Your task to perform on an android device: toggle pop-ups in chrome Image 0: 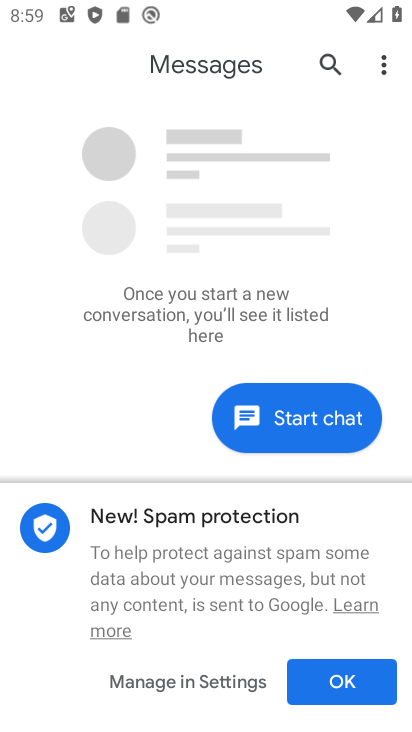
Step 0: press home button
Your task to perform on an android device: toggle pop-ups in chrome Image 1: 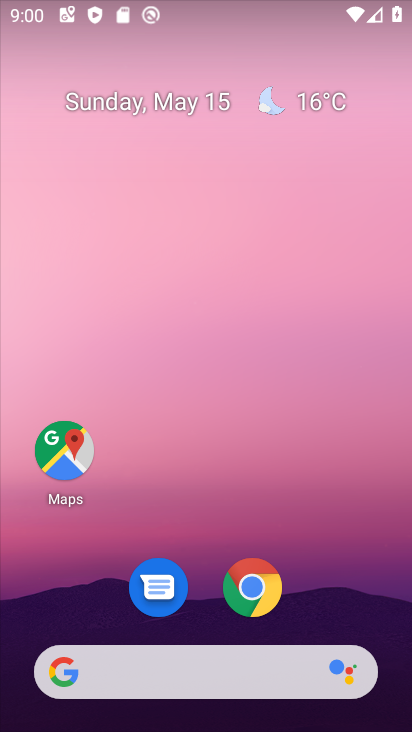
Step 1: click (256, 580)
Your task to perform on an android device: toggle pop-ups in chrome Image 2: 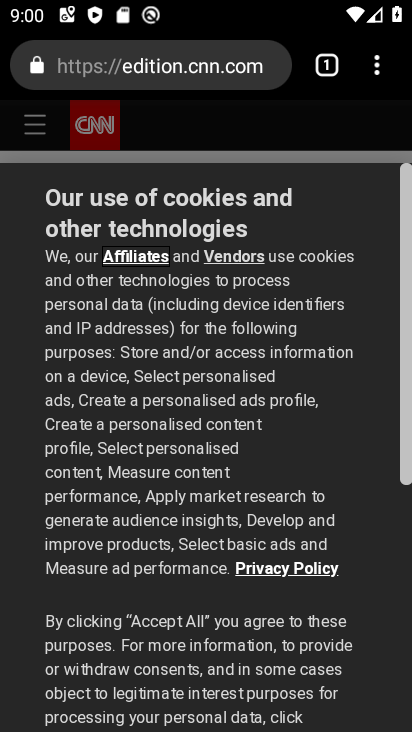
Step 2: drag from (382, 60) to (178, 629)
Your task to perform on an android device: toggle pop-ups in chrome Image 3: 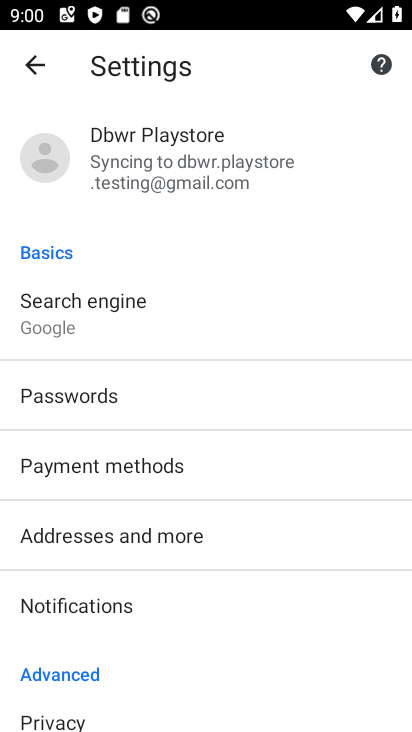
Step 3: click (204, 303)
Your task to perform on an android device: toggle pop-ups in chrome Image 4: 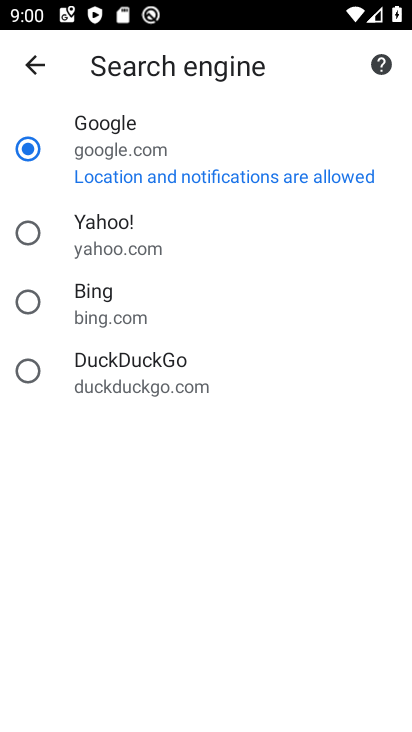
Step 4: click (32, 55)
Your task to perform on an android device: toggle pop-ups in chrome Image 5: 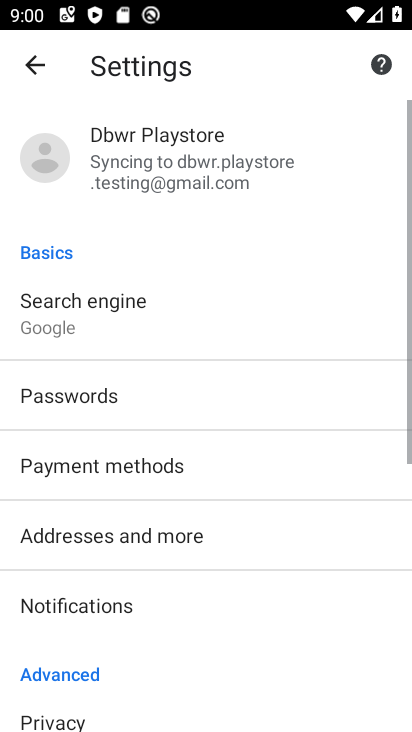
Step 5: drag from (239, 610) to (194, 167)
Your task to perform on an android device: toggle pop-ups in chrome Image 6: 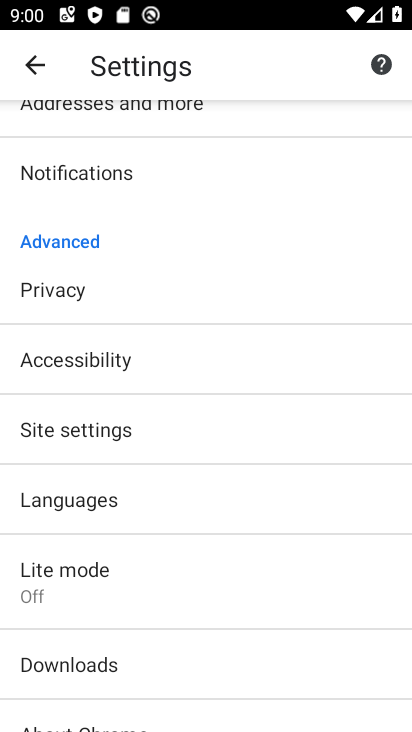
Step 6: click (101, 421)
Your task to perform on an android device: toggle pop-ups in chrome Image 7: 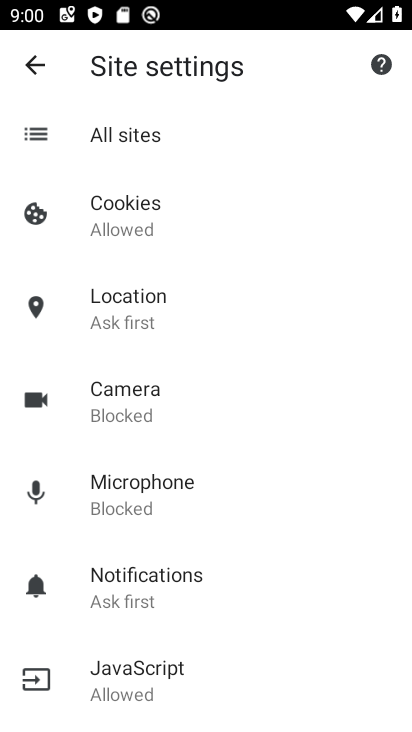
Step 7: drag from (247, 679) to (166, 196)
Your task to perform on an android device: toggle pop-ups in chrome Image 8: 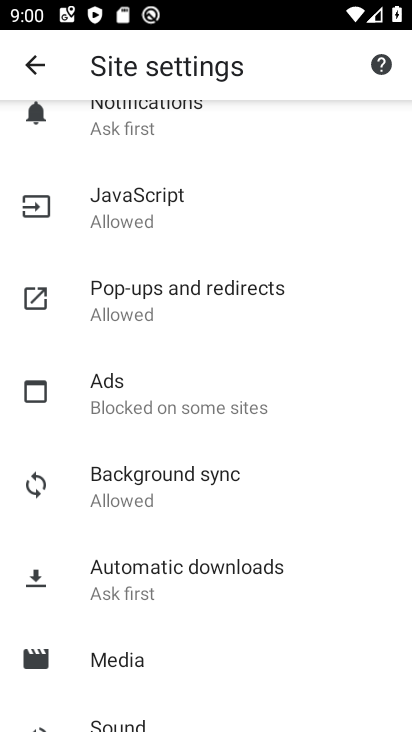
Step 8: click (107, 297)
Your task to perform on an android device: toggle pop-ups in chrome Image 9: 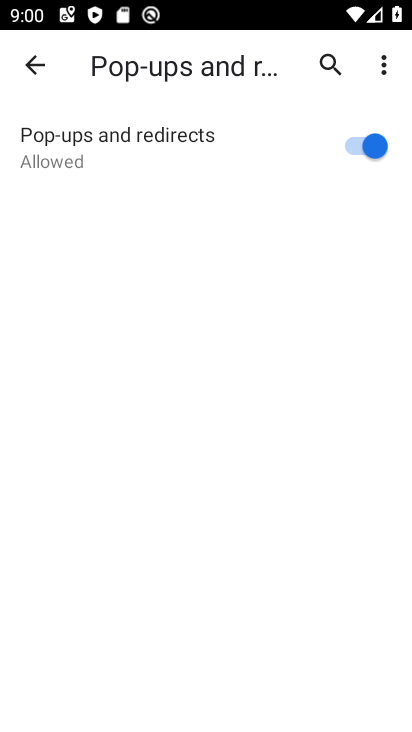
Step 9: click (380, 149)
Your task to perform on an android device: toggle pop-ups in chrome Image 10: 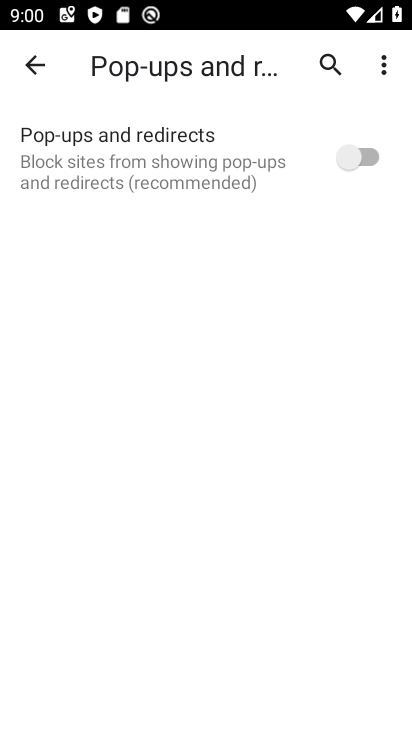
Step 10: task complete